Your task to perform on an android device: Go to accessibility settings Image 0: 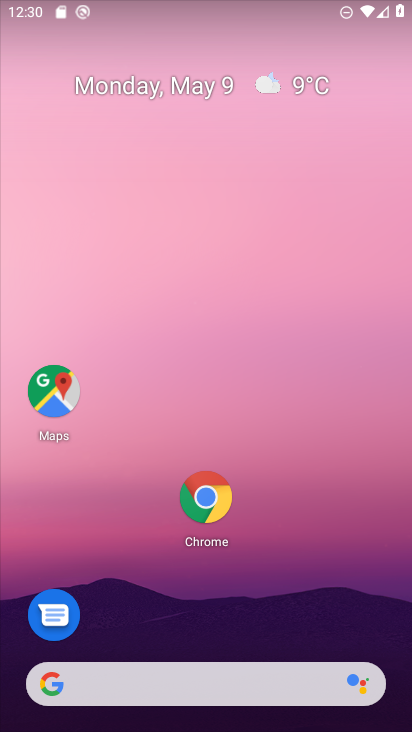
Step 0: drag from (280, 600) to (305, 89)
Your task to perform on an android device: Go to accessibility settings Image 1: 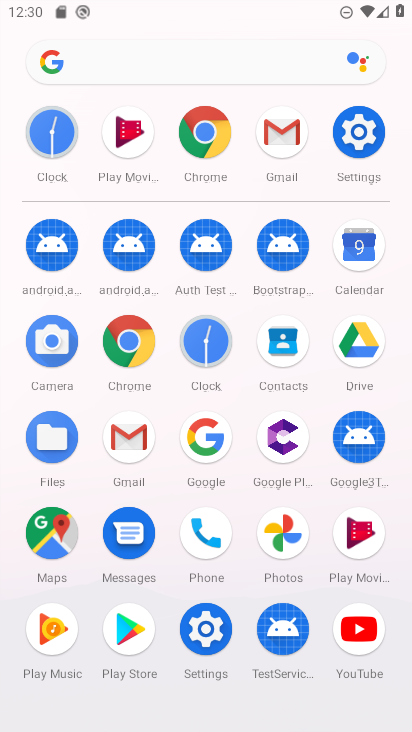
Step 1: click (349, 127)
Your task to perform on an android device: Go to accessibility settings Image 2: 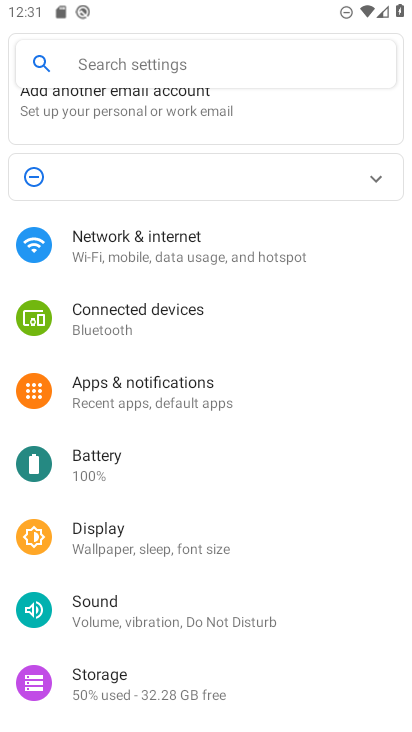
Step 2: drag from (315, 565) to (287, 165)
Your task to perform on an android device: Go to accessibility settings Image 3: 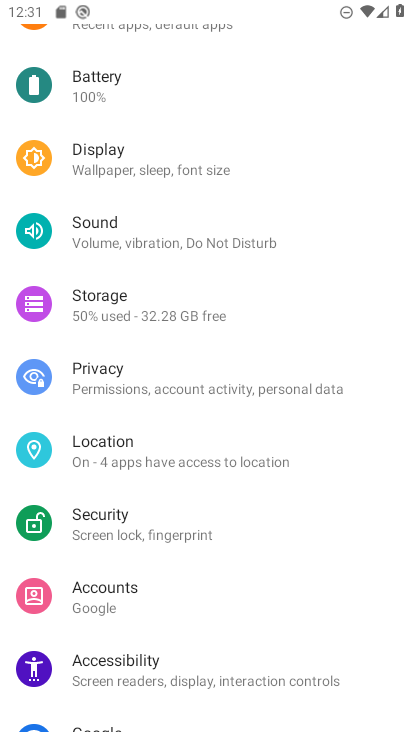
Step 3: click (150, 658)
Your task to perform on an android device: Go to accessibility settings Image 4: 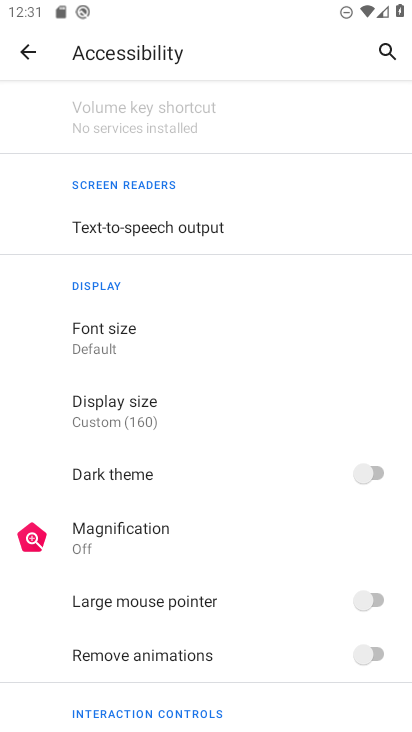
Step 4: task complete